Your task to perform on an android device: turn on javascript in the chrome app Image 0: 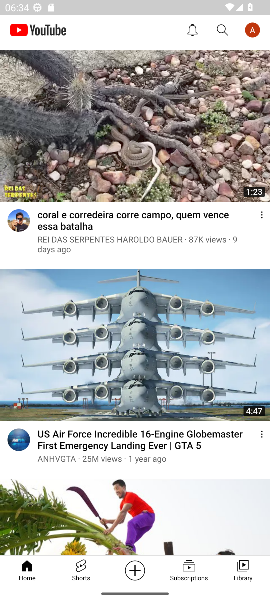
Step 0: press home button
Your task to perform on an android device: turn on javascript in the chrome app Image 1: 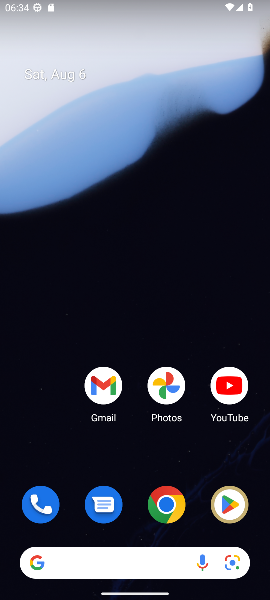
Step 1: click (166, 504)
Your task to perform on an android device: turn on javascript in the chrome app Image 2: 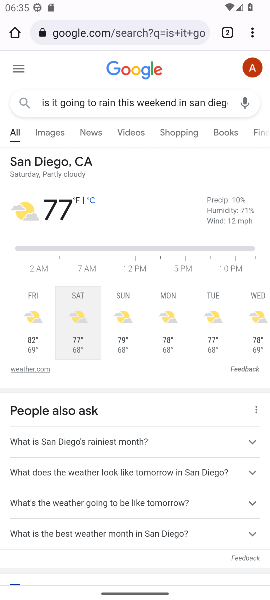
Step 2: click (254, 33)
Your task to perform on an android device: turn on javascript in the chrome app Image 3: 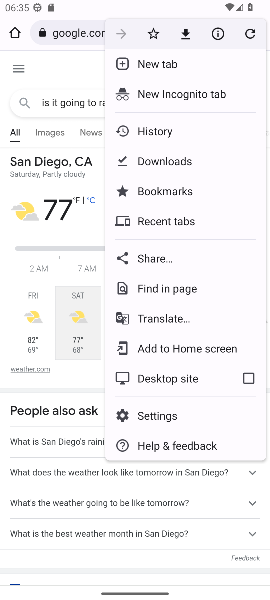
Step 3: click (152, 417)
Your task to perform on an android device: turn on javascript in the chrome app Image 4: 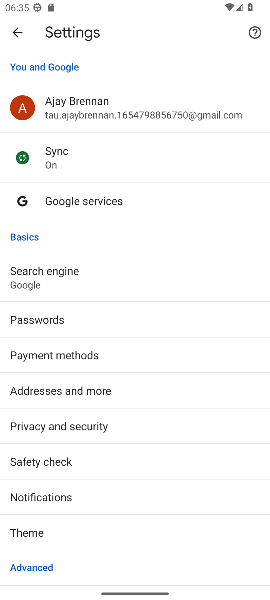
Step 4: drag from (87, 413) to (189, 252)
Your task to perform on an android device: turn on javascript in the chrome app Image 5: 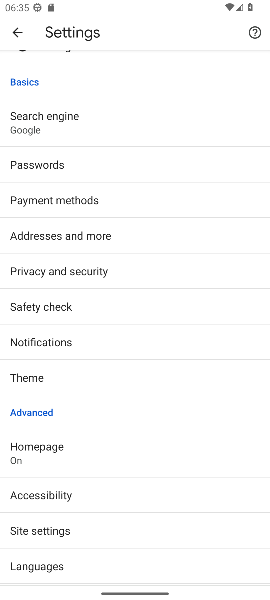
Step 5: drag from (109, 449) to (192, 326)
Your task to perform on an android device: turn on javascript in the chrome app Image 6: 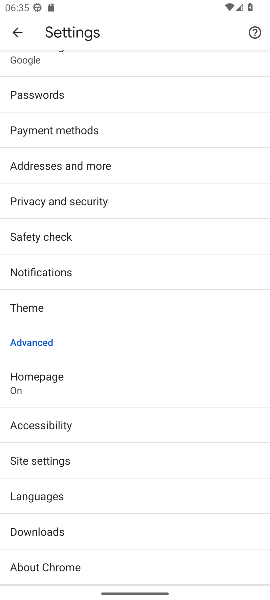
Step 6: click (57, 460)
Your task to perform on an android device: turn on javascript in the chrome app Image 7: 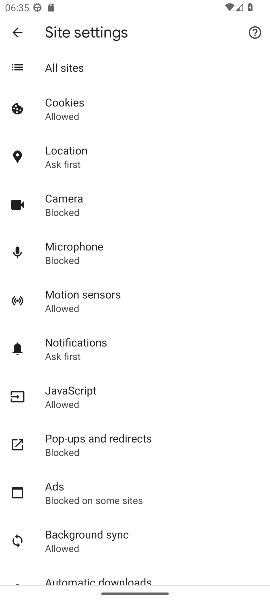
Step 7: click (75, 399)
Your task to perform on an android device: turn on javascript in the chrome app Image 8: 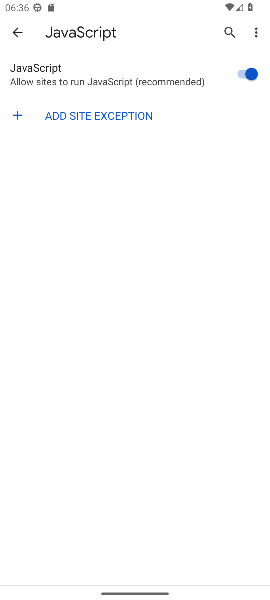
Step 8: task complete